Your task to perform on an android device: turn on improve location accuracy Image 0: 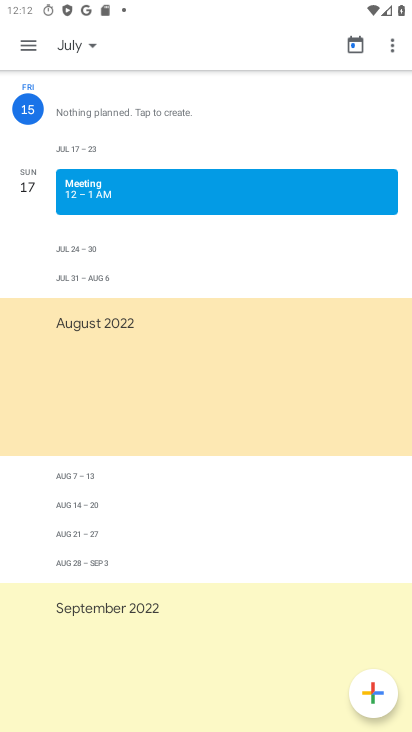
Step 0: press home button
Your task to perform on an android device: turn on improve location accuracy Image 1: 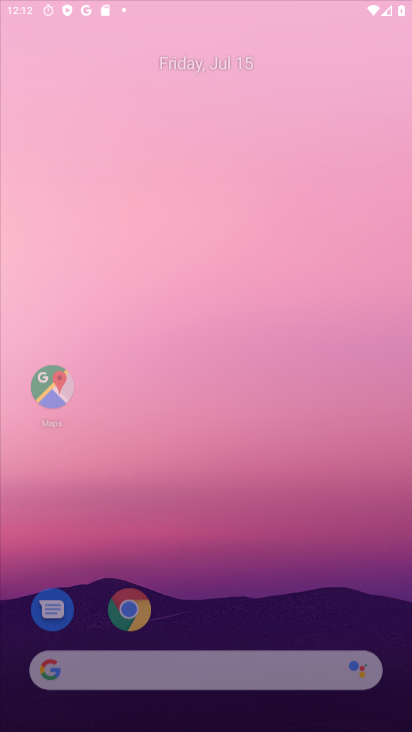
Step 1: drag from (216, 567) to (216, 289)
Your task to perform on an android device: turn on improve location accuracy Image 2: 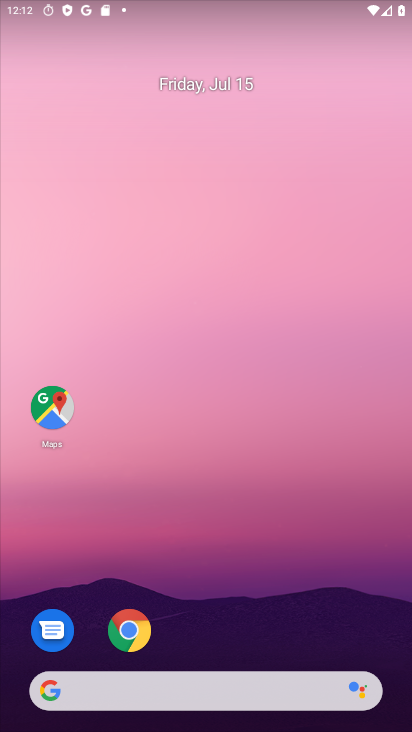
Step 2: drag from (165, 656) to (226, 148)
Your task to perform on an android device: turn on improve location accuracy Image 3: 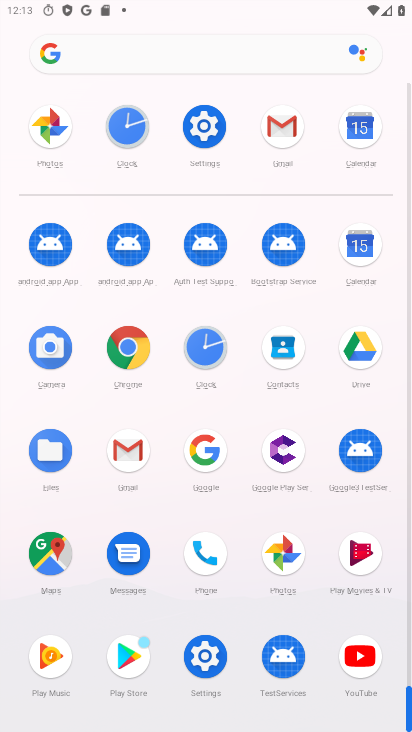
Step 3: click (209, 124)
Your task to perform on an android device: turn on improve location accuracy Image 4: 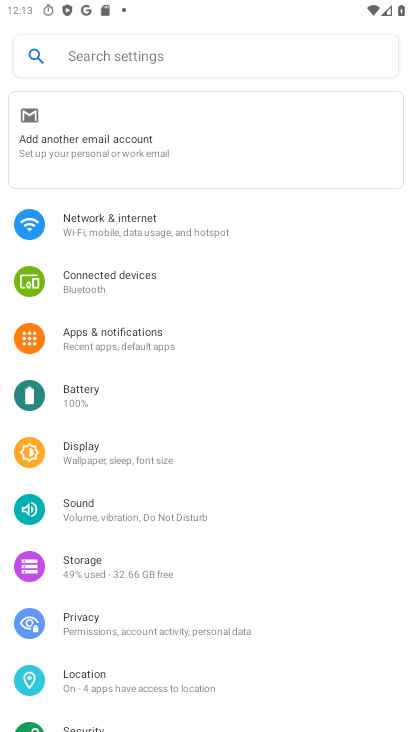
Step 4: drag from (184, 469) to (223, 206)
Your task to perform on an android device: turn on improve location accuracy Image 5: 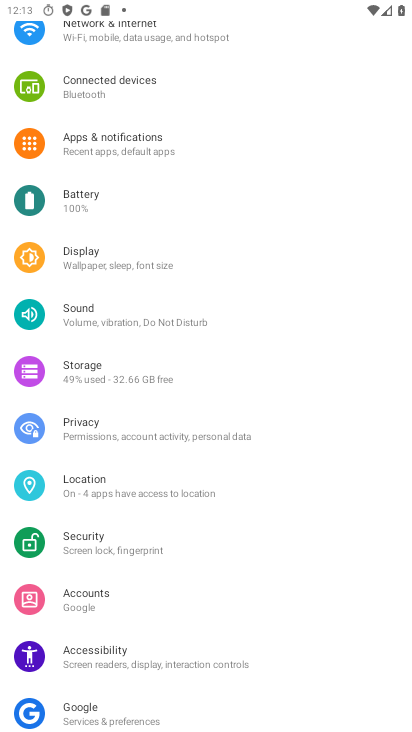
Step 5: click (127, 486)
Your task to perform on an android device: turn on improve location accuracy Image 6: 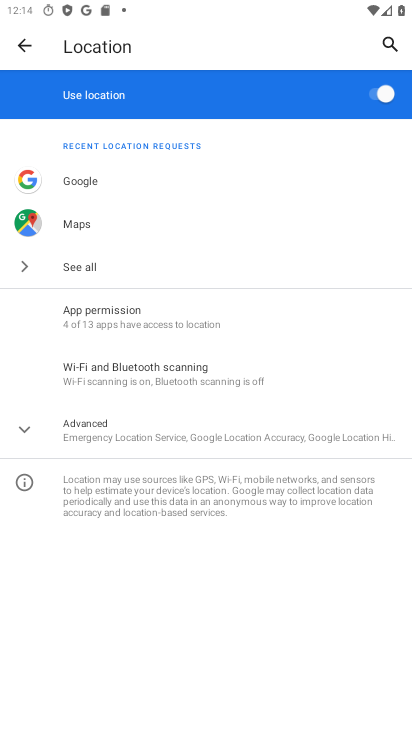
Step 6: click (74, 420)
Your task to perform on an android device: turn on improve location accuracy Image 7: 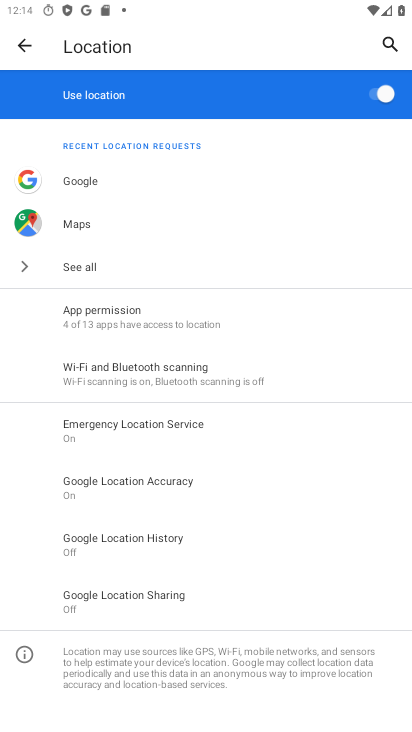
Step 7: click (178, 479)
Your task to perform on an android device: turn on improve location accuracy Image 8: 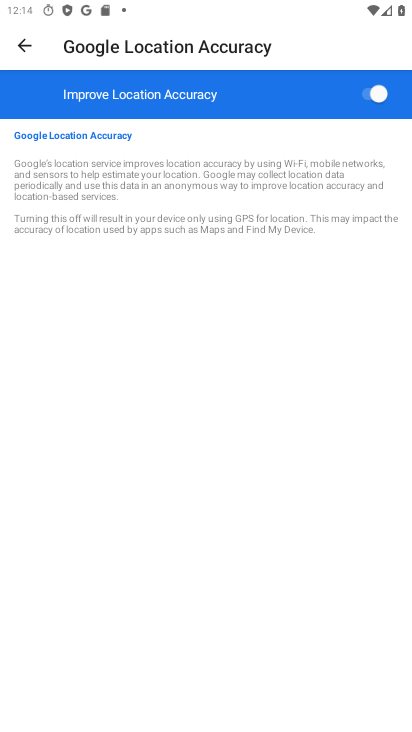
Step 8: task complete